Your task to perform on an android device: Show me popular videos on Youtube Image 0: 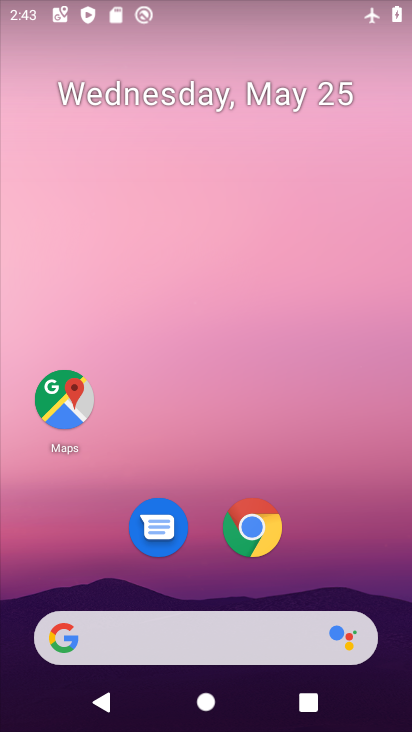
Step 0: click (272, 17)
Your task to perform on an android device: Show me popular videos on Youtube Image 1: 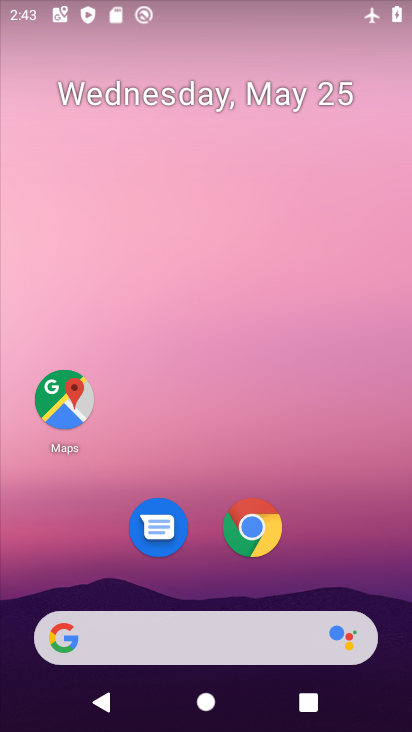
Step 1: drag from (220, 548) to (236, 72)
Your task to perform on an android device: Show me popular videos on Youtube Image 2: 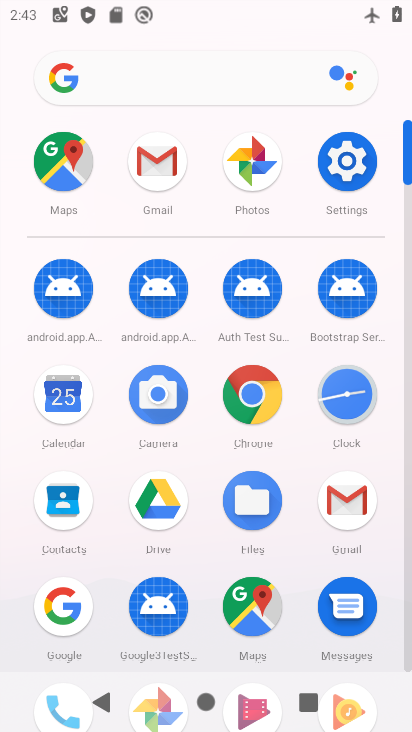
Step 2: click (157, 91)
Your task to perform on an android device: Show me popular videos on Youtube Image 3: 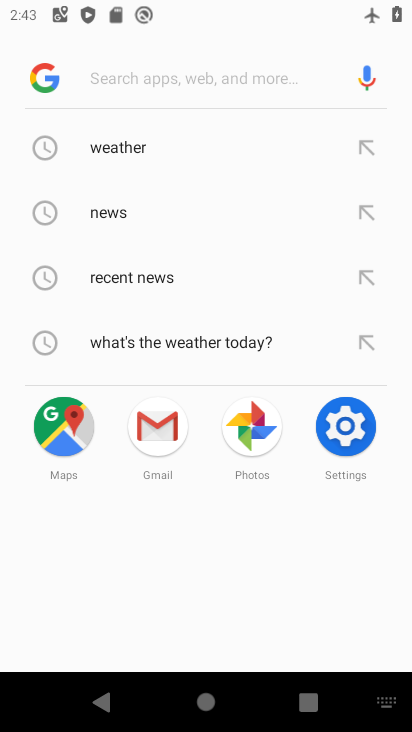
Step 3: press back button
Your task to perform on an android device: Show me popular videos on Youtube Image 4: 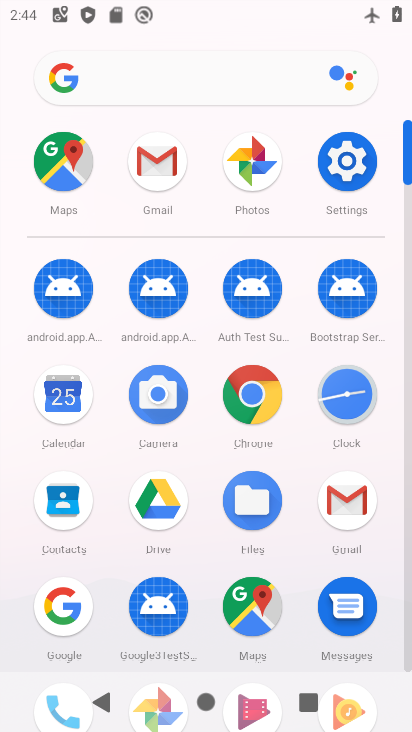
Step 4: drag from (203, 583) to (174, 182)
Your task to perform on an android device: Show me popular videos on Youtube Image 5: 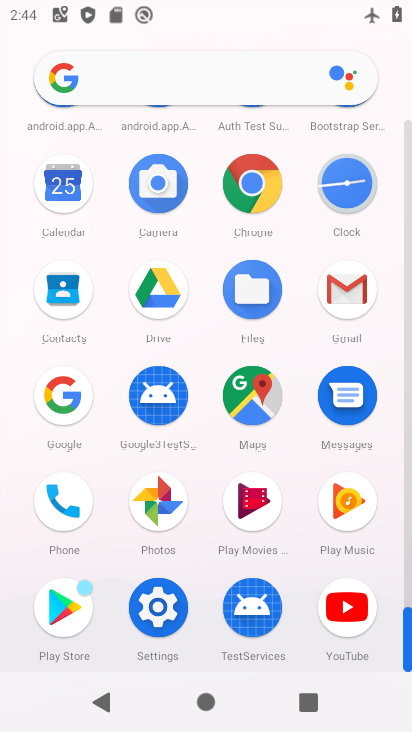
Step 5: click (354, 598)
Your task to perform on an android device: Show me popular videos on Youtube Image 6: 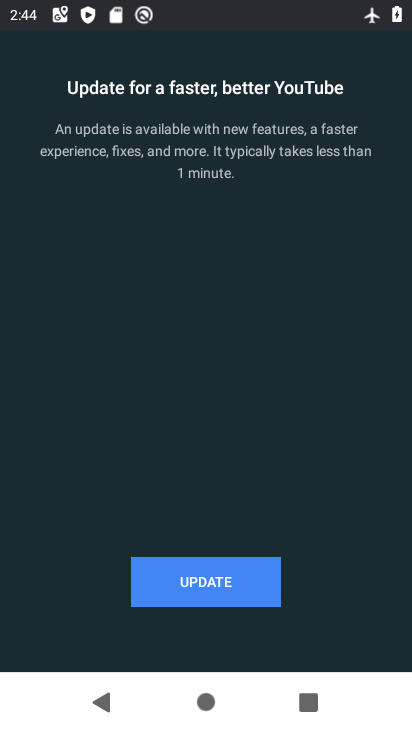
Step 6: click (166, 577)
Your task to perform on an android device: Show me popular videos on Youtube Image 7: 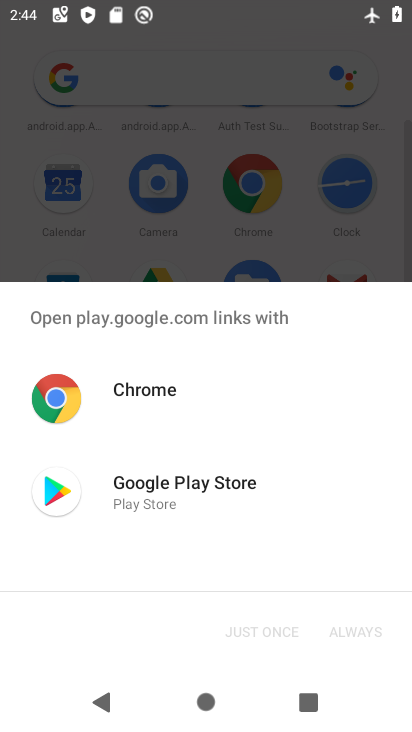
Step 7: task complete